Your task to perform on an android device: see creations saved in the google photos Image 0: 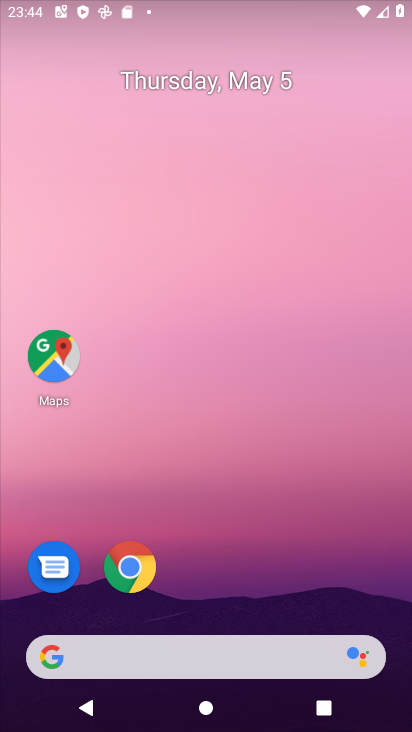
Step 0: click (194, 605)
Your task to perform on an android device: see creations saved in the google photos Image 1: 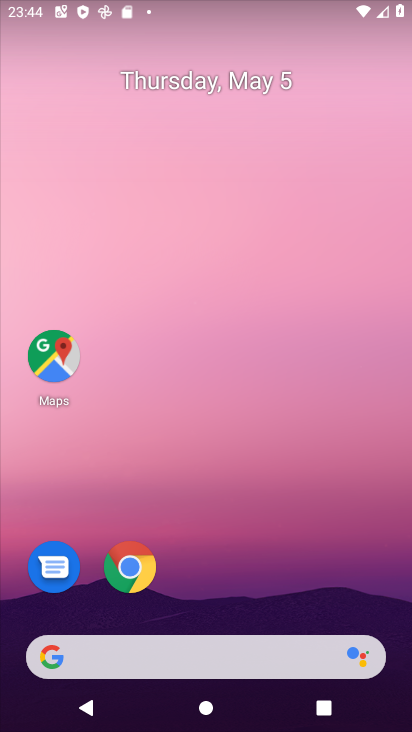
Step 1: drag from (198, 587) to (207, 156)
Your task to perform on an android device: see creations saved in the google photos Image 2: 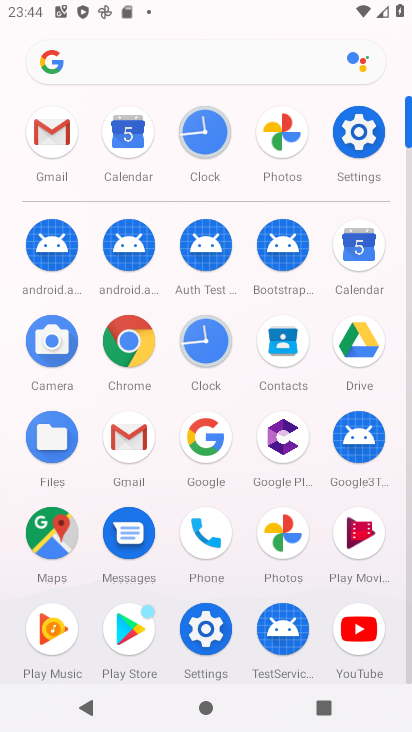
Step 2: click (281, 148)
Your task to perform on an android device: see creations saved in the google photos Image 3: 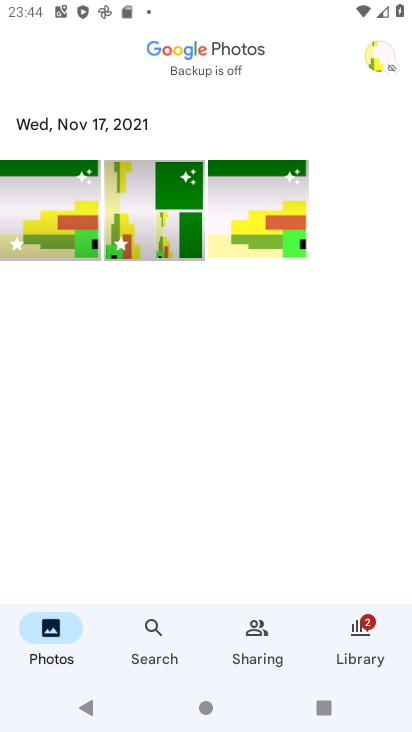
Step 3: click (136, 652)
Your task to perform on an android device: see creations saved in the google photos Image 4: 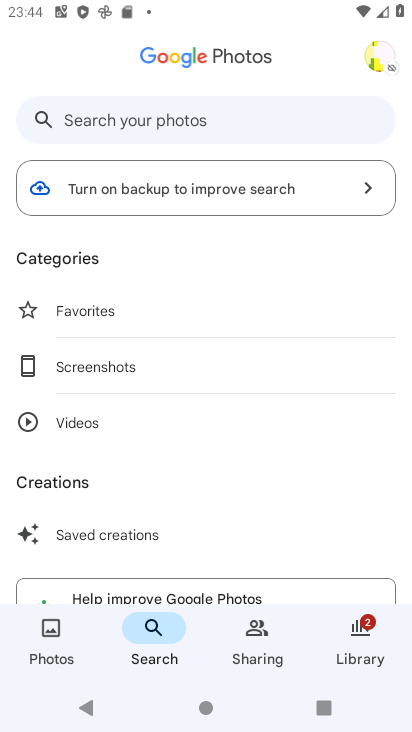
Step 4: click (68, 479)
Your task to perform on an android device: see creations saved in the google photos Image 5: 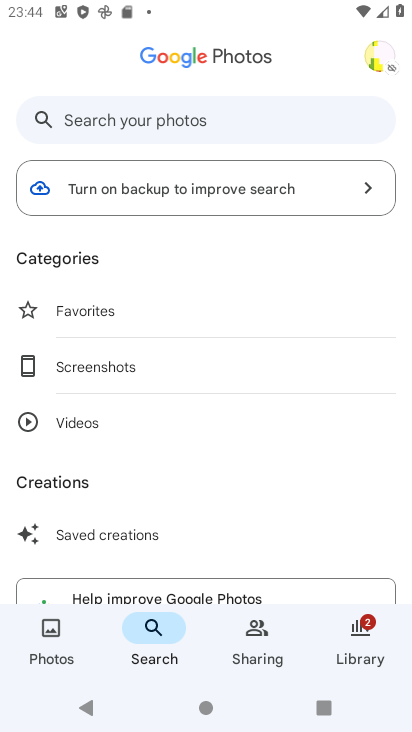
Step 5: drag from (92, 490) to (122, 247)
Your task to perform on an android device: see creations saved in the google photos Image 6: 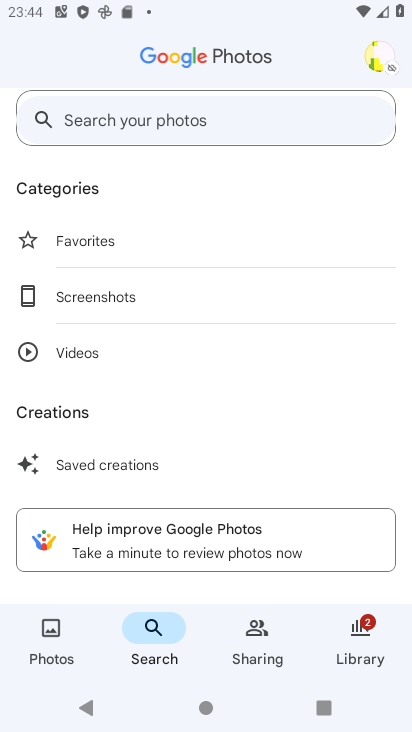
Step 6: click (78, 465)
Your task to perform on an android device: see creations saved in the google photos Image 7: 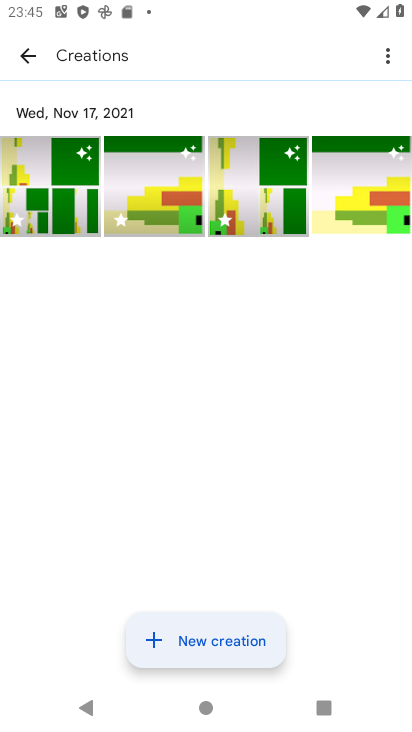
Step 7: task complete